Your task to perform on an android device: Is it going to rain today? Image 0: 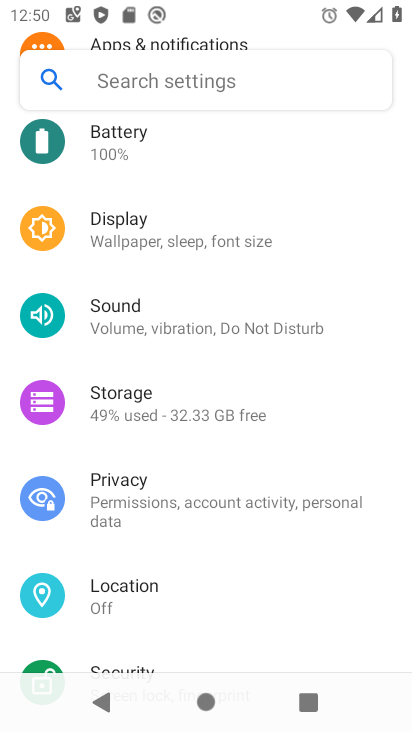
Step 0: drag from (348, 548) to (335, 380)
Your task to perform on an android device: Is it going to rain today? Image 1: 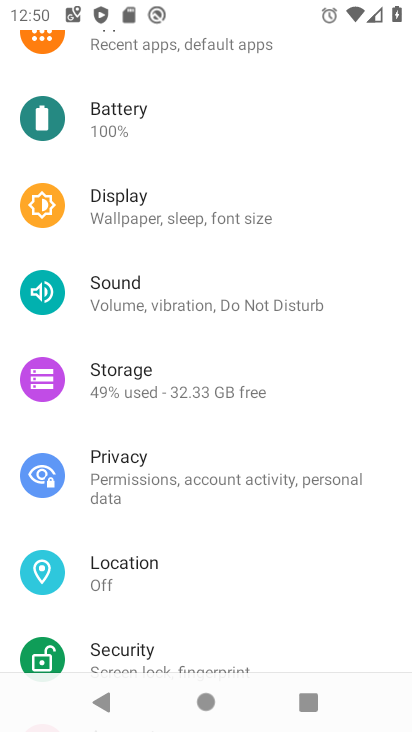
Step 1: press home button
Your task to perform on an android device: Is it going to rain today? Image 2: 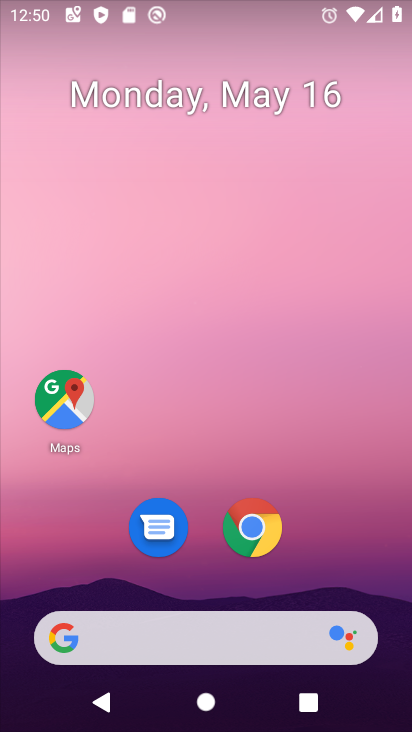
Step 2: click (258, 549)
Your task to perform on an android device: Is it going to rain today? Image 3: 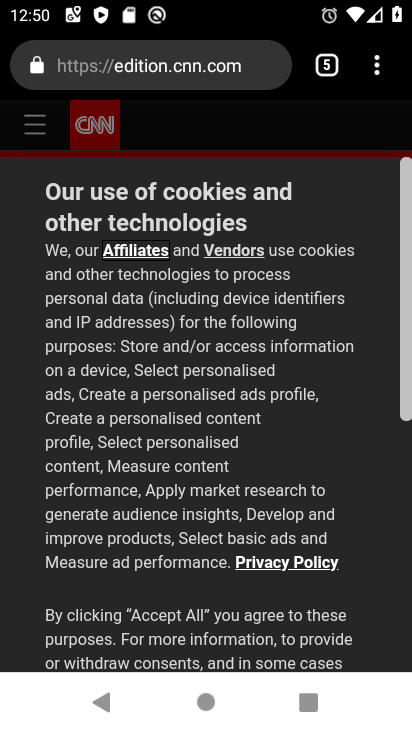
Step 3: press home button
Your task to perform on an android device: Is it going to rain today? Image 4: 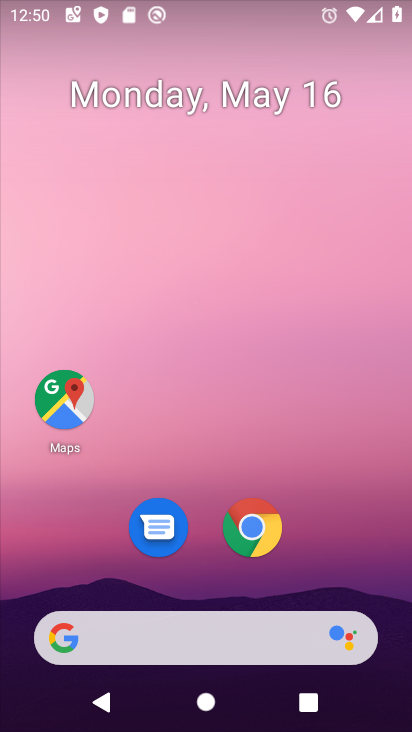
Step 4: drag from (319, 551) to (358, 204)
Your task to perform on an android device: Is it going to rain today? Image 5: 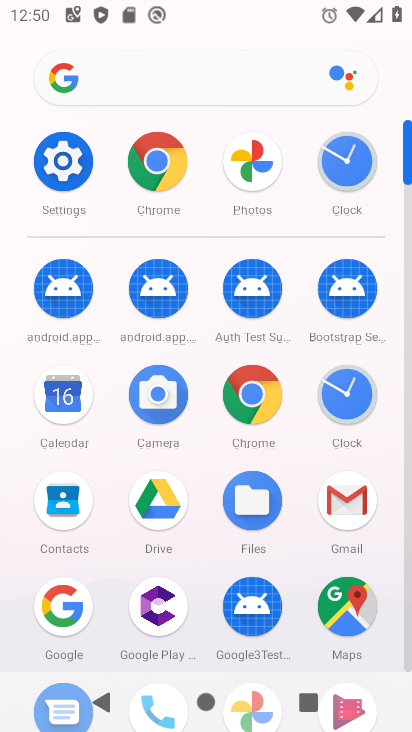
Step 5: click (218, 88)
Your task to perform on an android device: Is it going to rain today? Image 6: 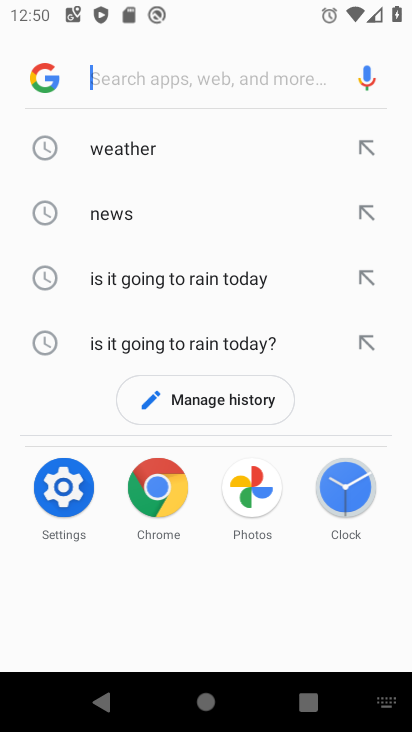
Step 6: click (234, 266)
Your task to perform on an android device: Is it going to rain today? Image 7: 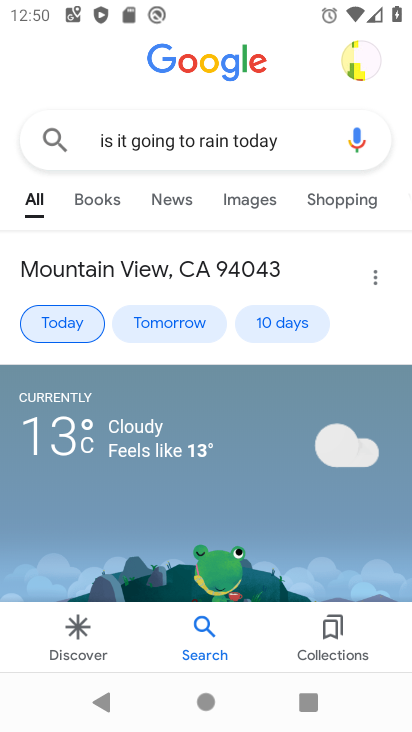
Step 7: task complete